Your task to perform on an android device: Open Google Chrome and click the shortcut for Amazon.com Image 0: 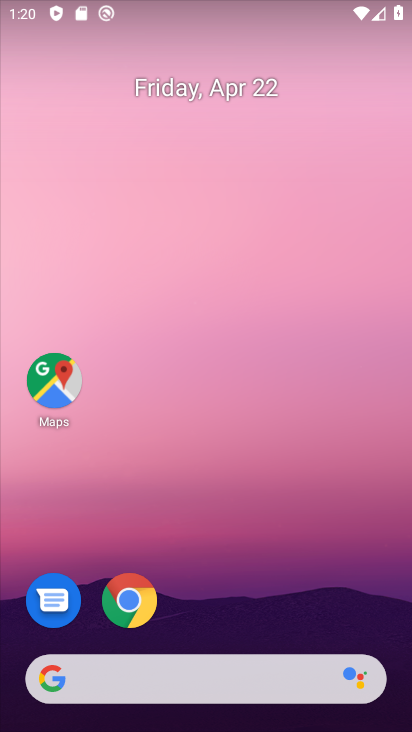
Step 0: click (141, 599)
Your task to perform on an android device: Open Google Chrome and click the shortcut for Amazon.com Image 1: 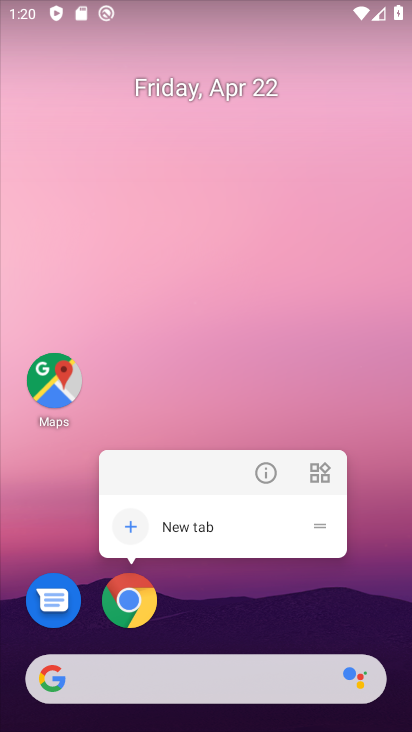
Step 1: click (133, 596)
Your task to perform on an android device: Open Google Chrome and click the shortcut for Amazon.com Image 2: 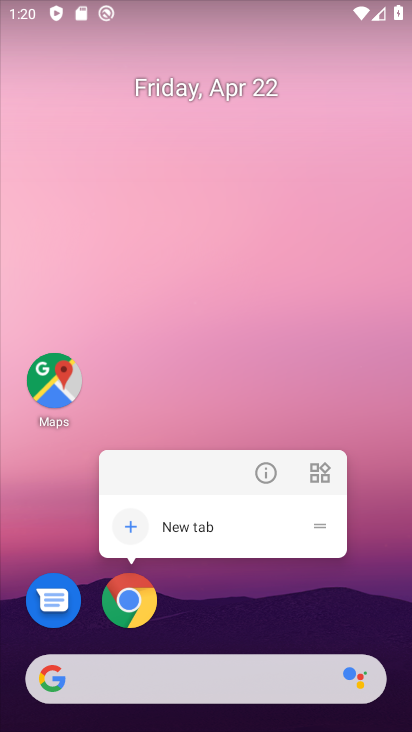
Step 2: click (126, 608)
Your task to perform on an android device: Open Google Chrome and click the shortcut for Amazon.com Image 3: 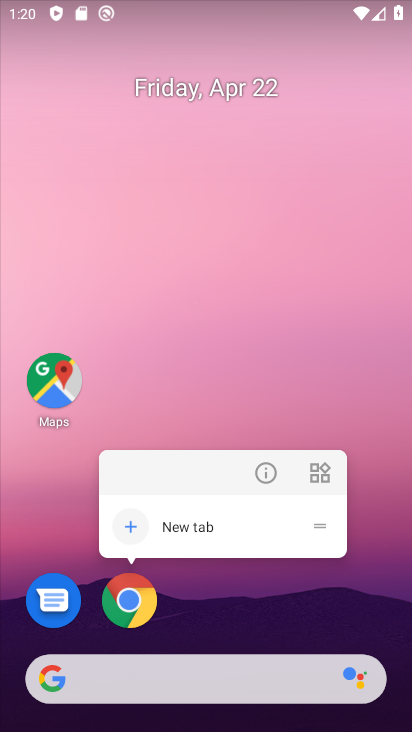
Step 3: click (124, 612)
Your task to perform on an android device: Open Google Chrome and click the shortcut for Amazon.com Image 4: 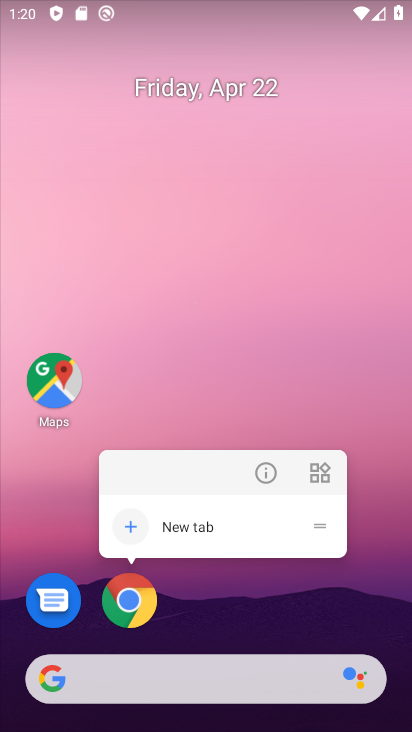
Step 4: click (128, 594)
Your task to perform on an android device: Open Google Chrome and click the shortcut for Amazon.com Image 5: 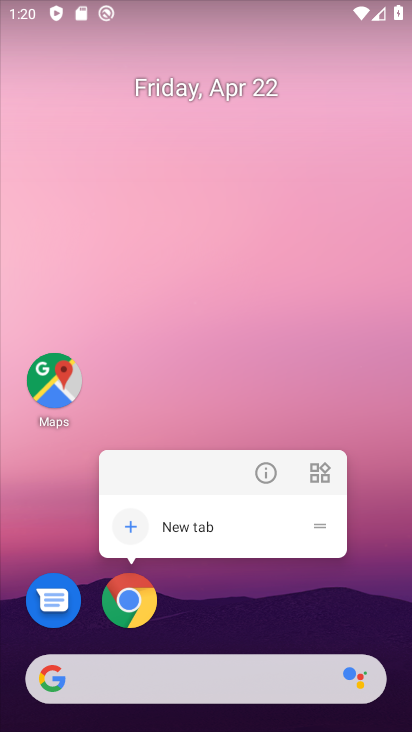
Step 5: click (144, 600)
Your task to perform on an android device: Open Google Chrome and click the shortcut for Amazon.com Image 6: 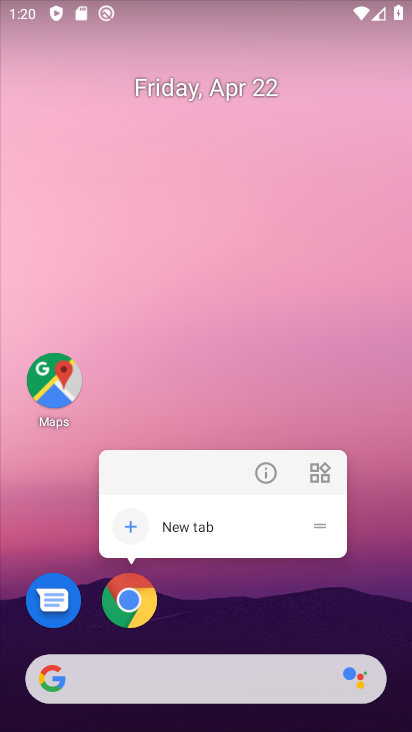
Step 6: click (139, 599)
Your task to perform on an android device: Open Google Chrome and click the shortcut for Amazon.com Image 7: 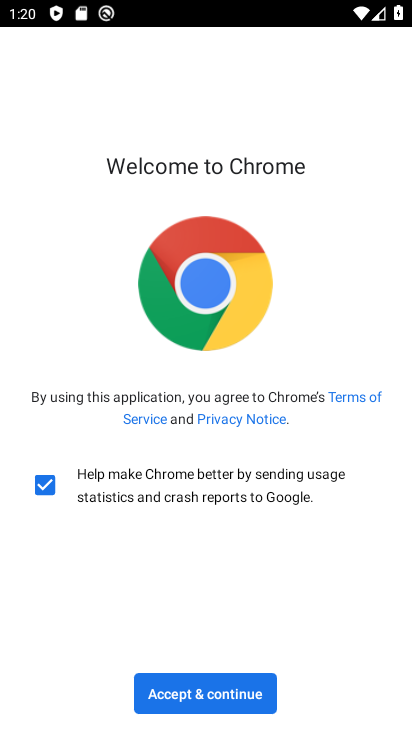
Step 7: click (186, 678)
Your task to perform on an android device: Open Google Chrome and click the shortcut for Amazon.com Image 8: 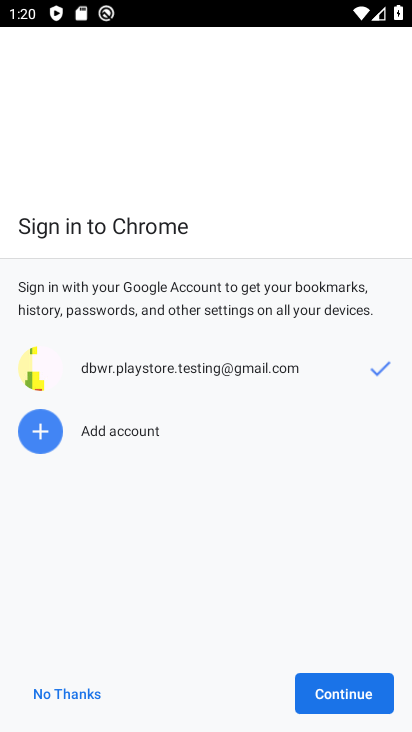
Step 8: click (374, 715)
Your task to perform on an android device: Open Google Chrome and click the shortcut for Amazon.com Image 9: 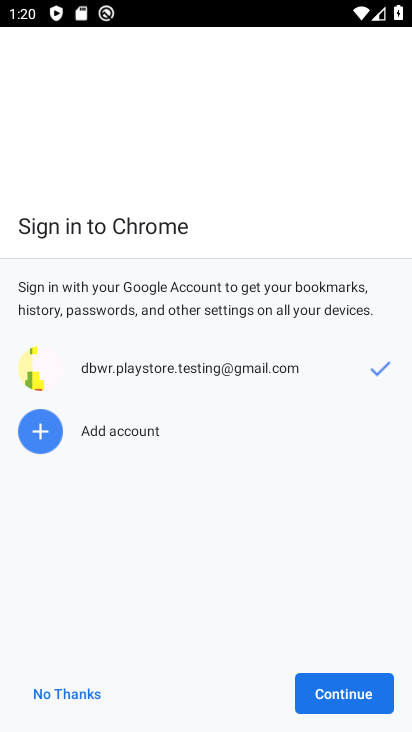
Step 9: click (370, 696)
Your task to perform on an android device: Open Google Chrome and click the shortcut for Amazon.com Image 10: 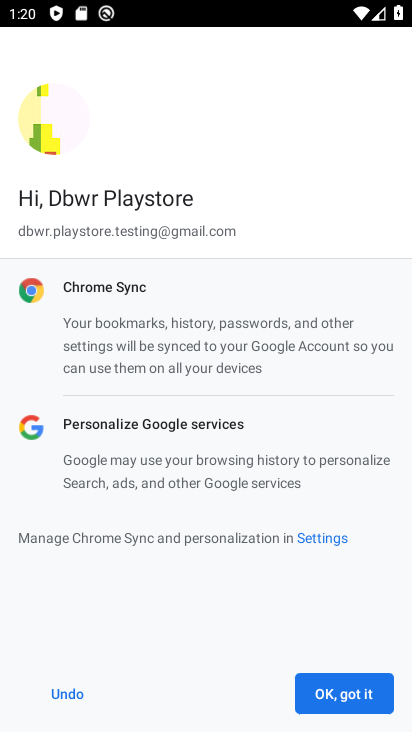
Step 10: click (370, 696)
Your task to perform on an android device: Open Google Chrome and click the shortcut for Amazon.com Image 11: 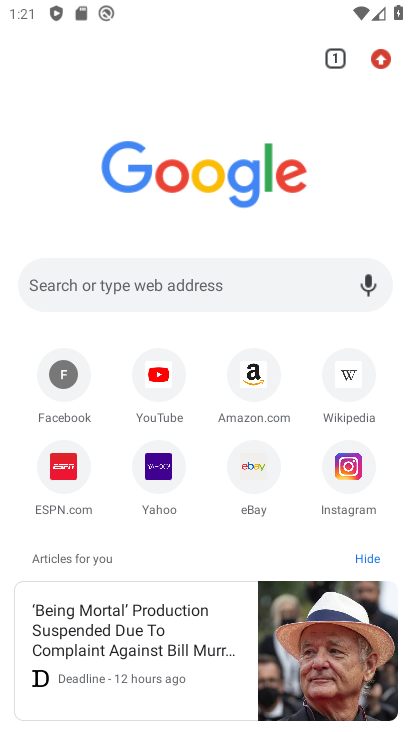
Step 11: click (270, 376)
Your task to perform on an android device: Open Google Chrome and click the shortcut for Amazon.com Image 12: 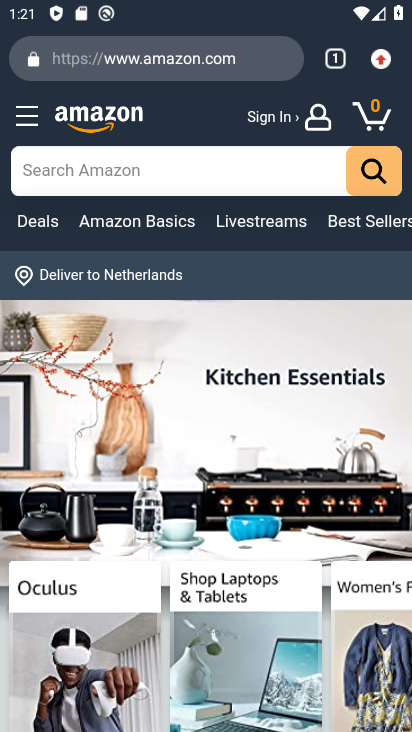
Step 12: task complete